Your task to perform on an android device: open app "LinkedIn" (install if not already installed) Image 0: 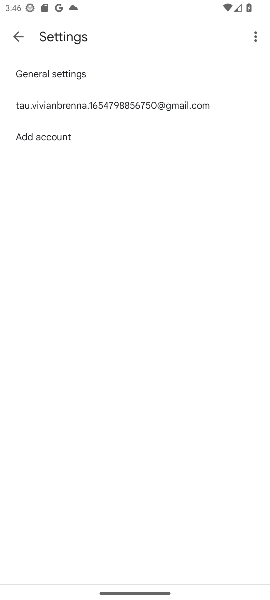
Step 0: press home button
Your task to perform on an android device: open app "LinkedIn" (install if not already installed) Image 1: 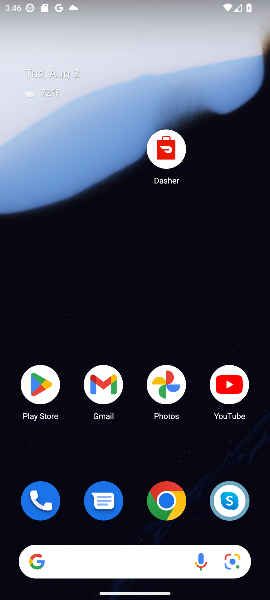
Step 1: click (52, 380)
Your task to perform on an android device: open app "LinkedIn" (install if not already installed) Image 2: 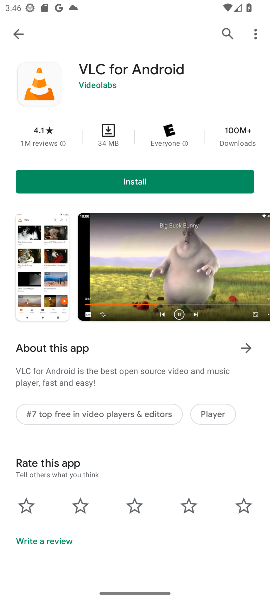
Step 2: click (225, 31)
Your task to perform on an android device: open app "LinkedIn" (install if not already installed) Image 3: 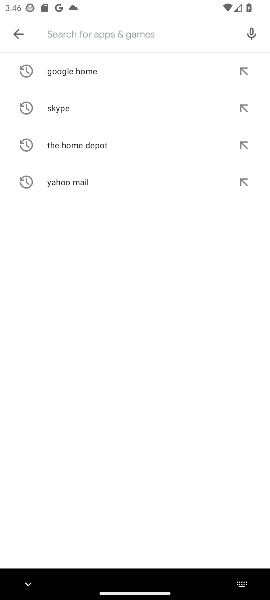
Step 3: type "LinkedIn"
Your task to perform on an android device: open app "LinkedIn" (install if not already installed) Image 4: 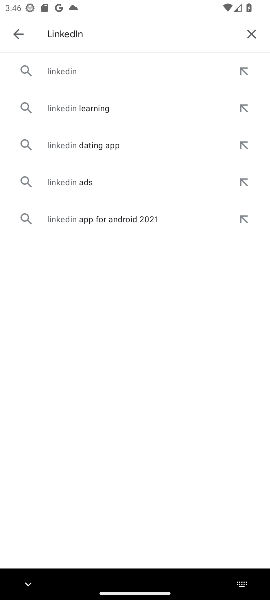
Step 4: click (77, 78)
Your task to perform on an android device: open app "LinkedIn" (install if not already installed) Image 5: 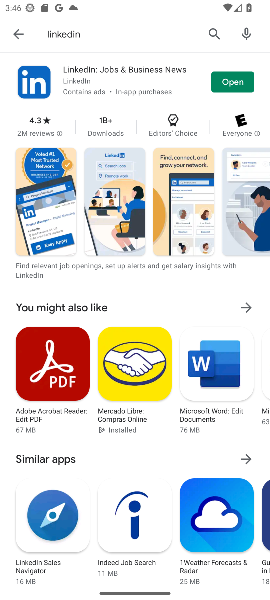
Step 5: click (239, 78)
Your task to perform on an android device: open app "LinkedIn" (install if not already installed) Image 6: 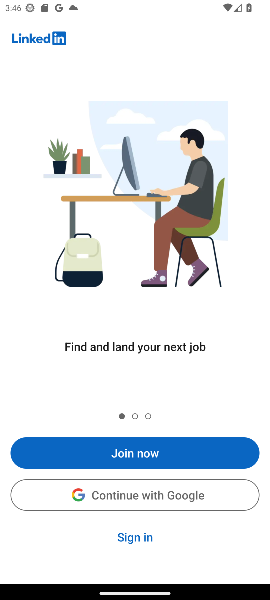
Step 6: task complete